Your task to perform on an android device: check the backup settings in the google photos Image 0: 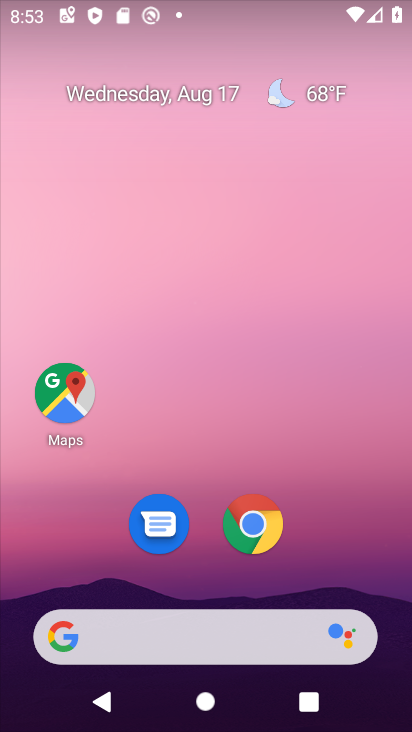
Step 0: drag from (323, 527) to (350, 7)
Your task to perform on an android device: check the backup settings in the google photos Image 1: 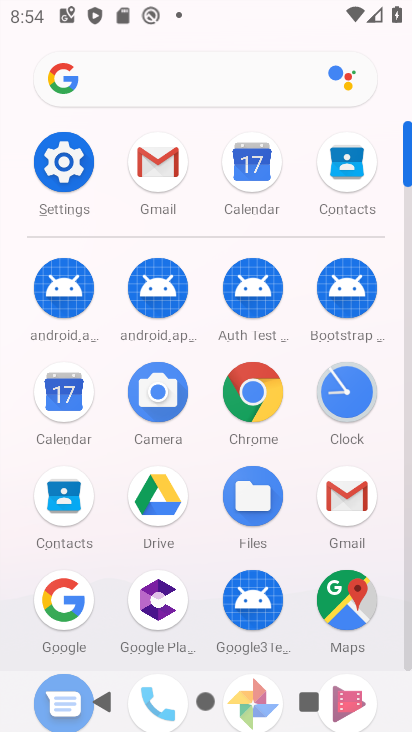
Step 1: drag from (230, 443) to (230, 143)
Your task to perform on an android device: check the backup settings in the google photos Image 2: 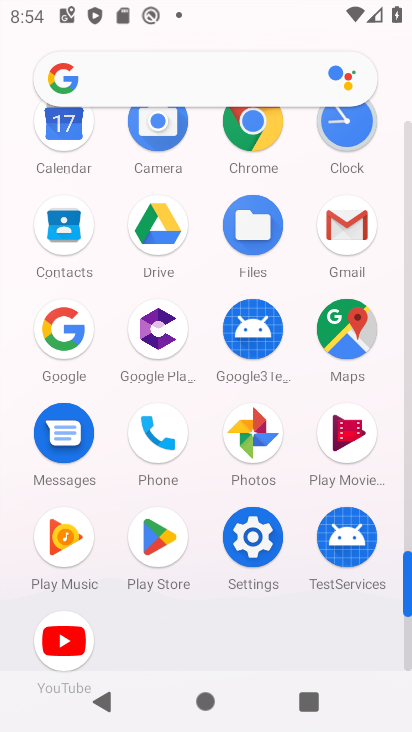
Step 2: click (255, 438)
Your task to perform on an android device: check the backup settings in the google photos Image 3: 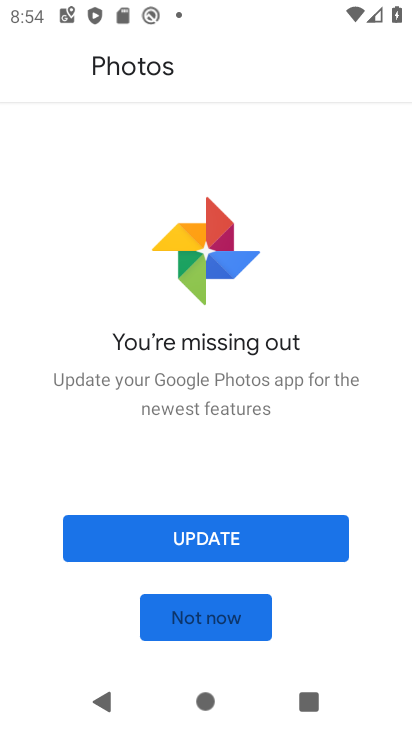
Step 3: click (235, 617)
Your task to perform on an android device: check the backup settings in the google photos Image 4: 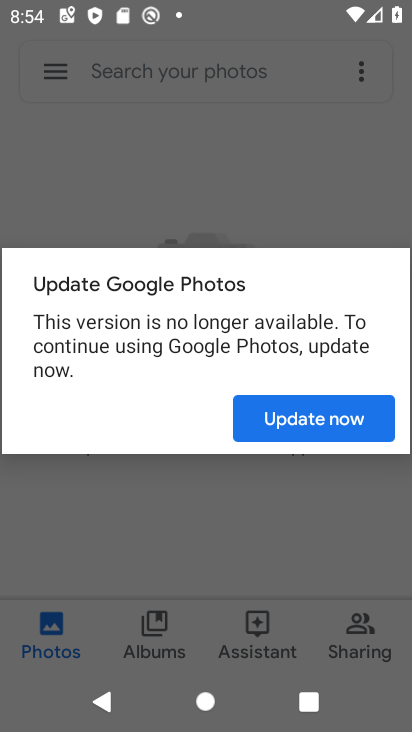
Step 4: click (347, 417)
Your task to perform on an android device: check the backup settings in the google photos Image 5: 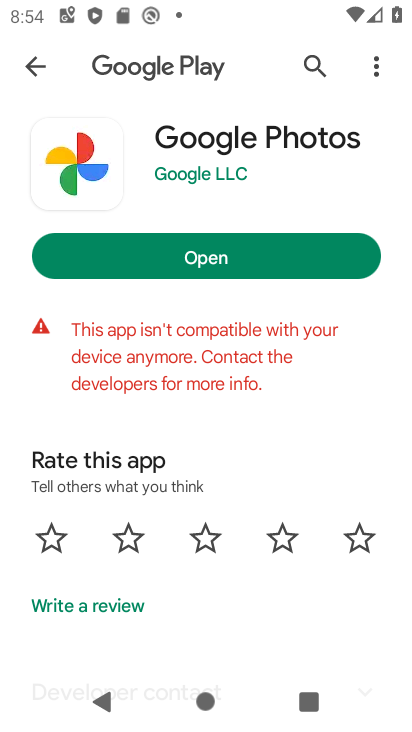
Step 5: click (285, 255)
Your task to perform on an android device: check the backup settings in the google photos Image 6: 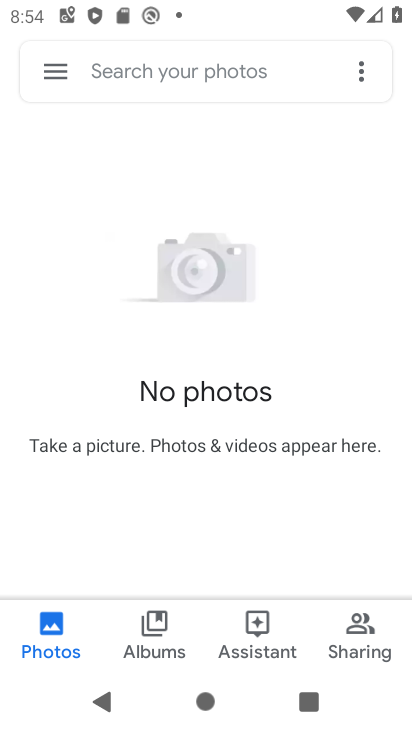
Step 6: click (61, 68)
Your task to perform on an android device: check the backup settings in the google photos Image 7: 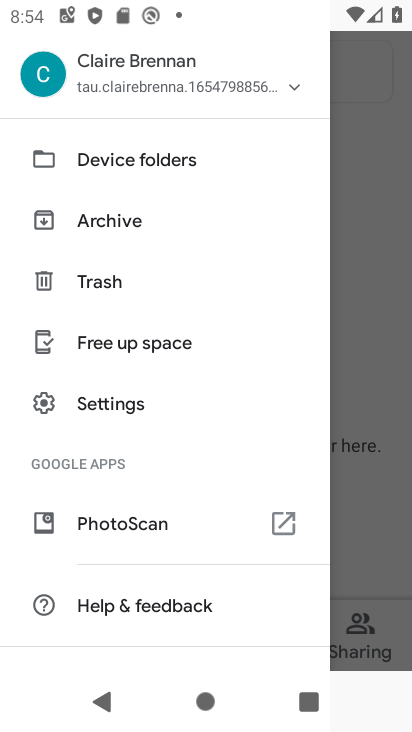
Step 7: click (104, 398)
Your task to perform on an android device: check the backup settings in the google photos Image 8: 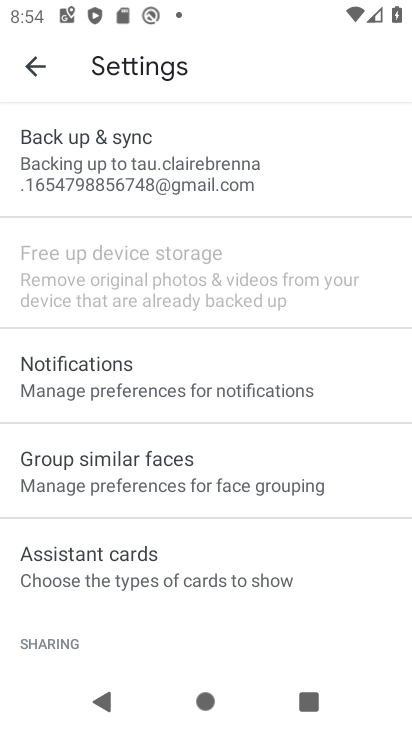
Step 8: click (201, 159)
Your task to perform on an android device: check the backup settings in the google photos Image 9: 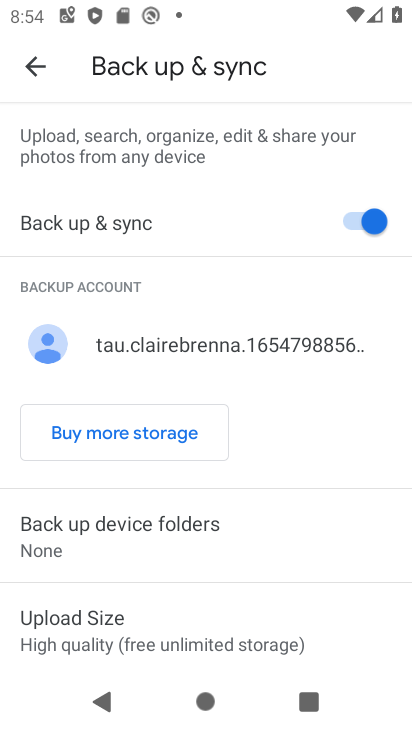
Step 9: task complete